Your task to perform on an android device: turn off picture-in-picture Image 0: 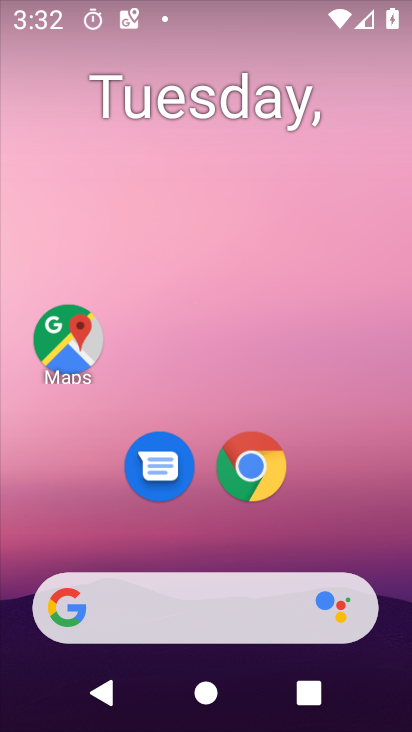
Step 0: drag from (381, 525) to (372, 205)
Your task to perform on an android device: turn off picture-in-picture Image 1: 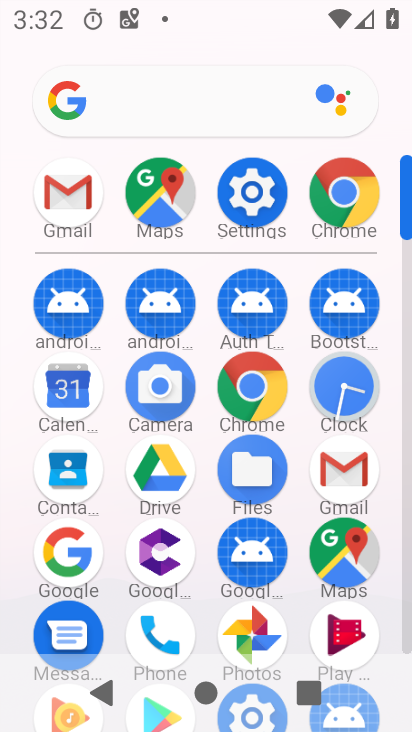
Step 1: click (264, 216)
Your task to perform on an android device: turn off picture-in-picture Image 2: 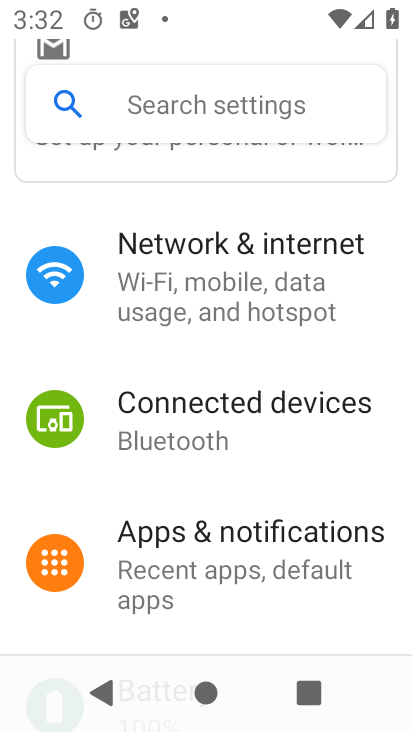
Step 2: drag from (373, 298) to (373, 511)
Your task to perform on an android device: turn off picture-in-picture Image 3: 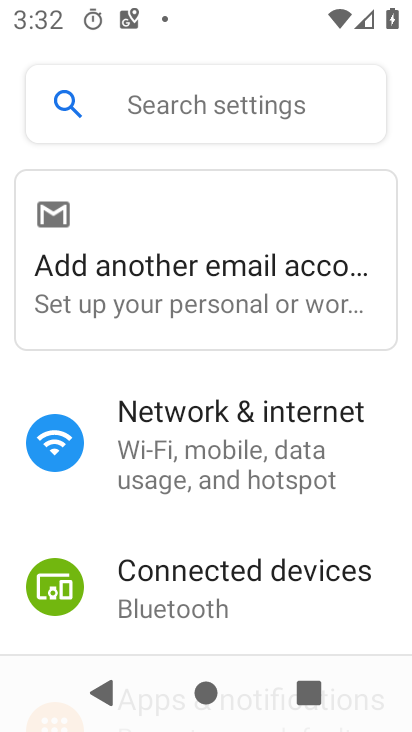
Step 3: drag from (377, 206) to (384, 482)
Your task to perform on an android device: turn off picture-in-picture Image 4: 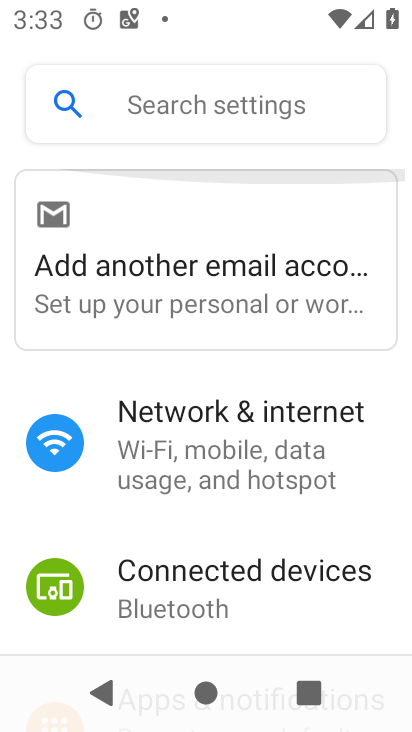
Step 4: drag from (381, 496) to (384, 418)
Your task to perform on an android device: turn off picture-in-picture Image 5: 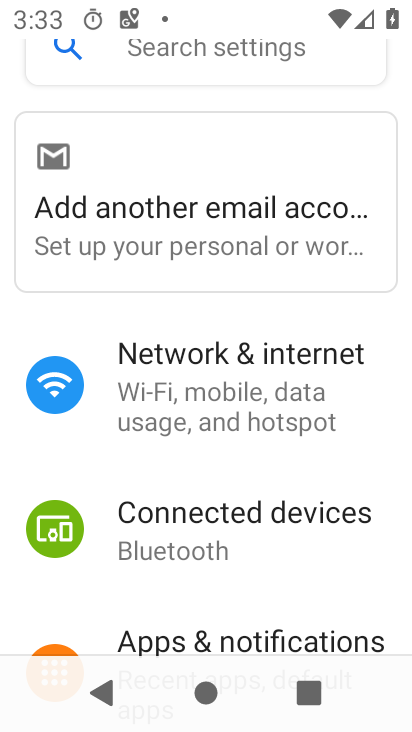
Step 5: drag from (377, 550) to (376, 468)
Your task to perform on an android device: turn off picture-in-picture Image 6: 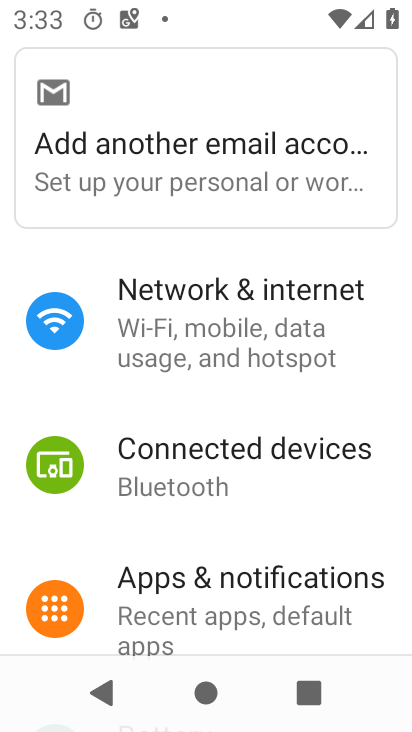
Step 6: drag from (376, 515) to (374, 423)
Your task to perform on an android device: turn off picture-in-picture Image 7: 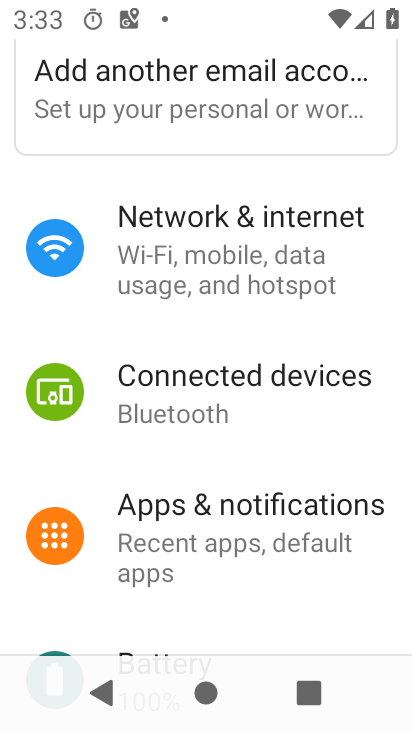
Step 7: drag from (370, 565) to (378, 465)
Your task to perform on an android device: turn off picture-in-picture Image 8: 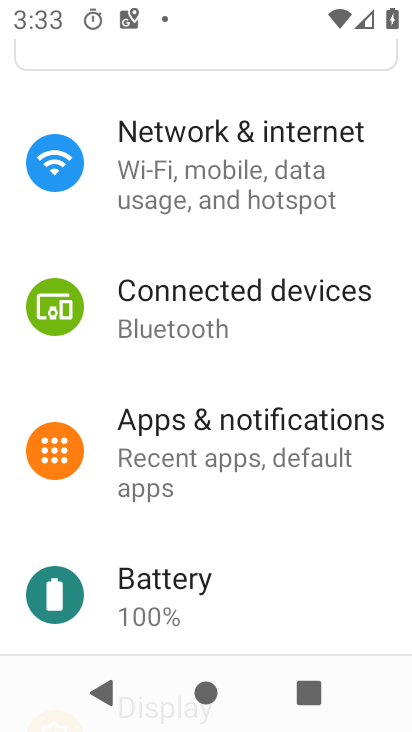
Step 8: click (332, 467)
Your task to perform on an android device: turn off picture-in-picture Image 9: 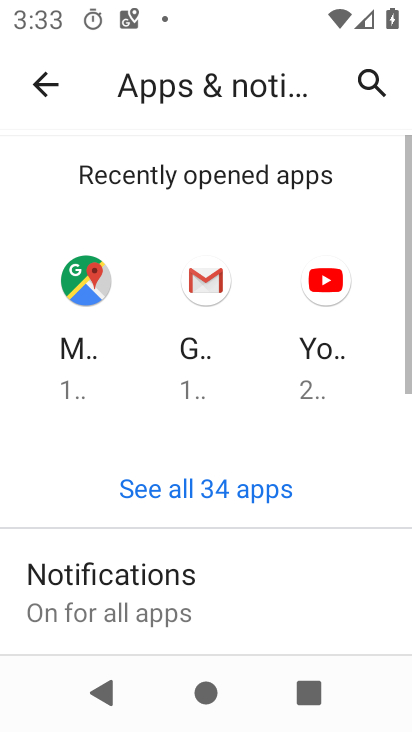
Step 9: drag from (319, 532) to (325, 448)
Your task to perform on an android device: turn off picture-in-picture Image 10: 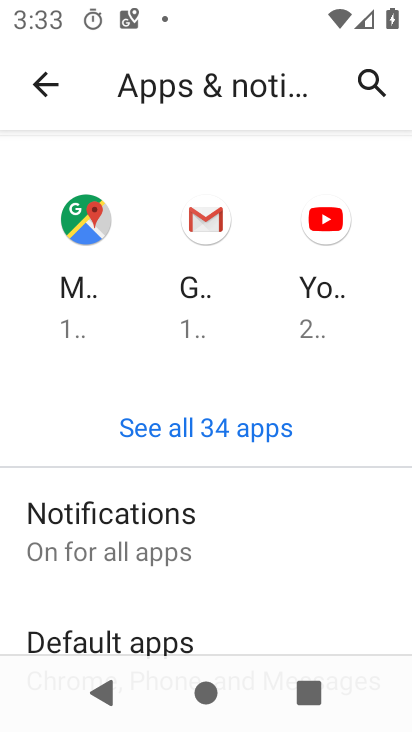
Step 10: drag from (324, 545) to (323, 431)
Your task to perform on an android device: turn off picture-in-picture Image 11: 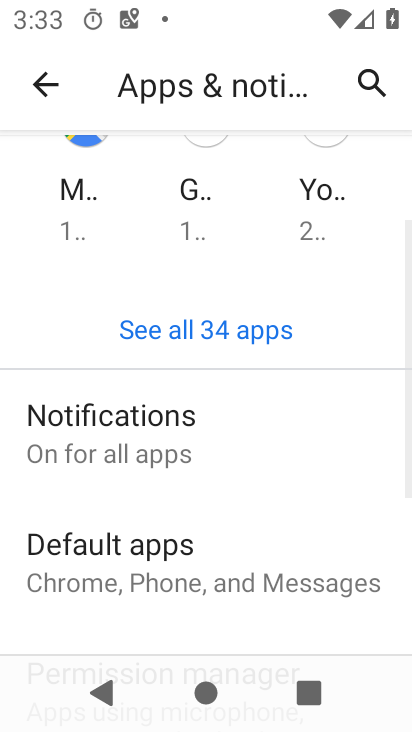
Step 11: drag from (328, 565) to (330, 468)
Your task to perform on an android device: turn off picture-in-picture Image 12: 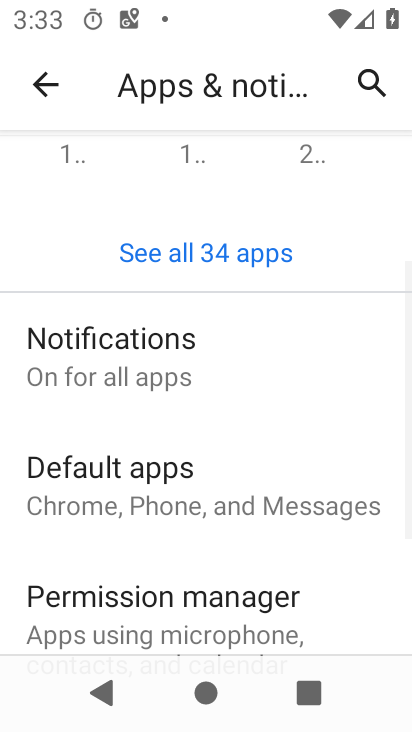
Step 12: drag from (355, 587) to (356, 403)
Your task to perform on an android device: turn off picture-in-picture Image 13: 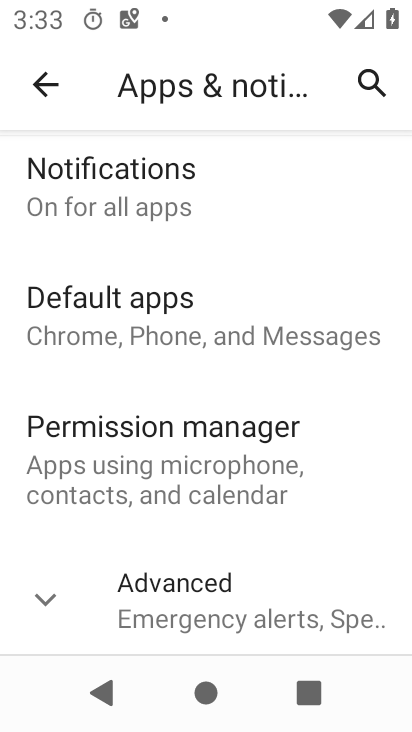
Step 13: drag from (333, 508) to (349, 427)
Your task to perform on an android device: turn off picture-in-picture Image 14: 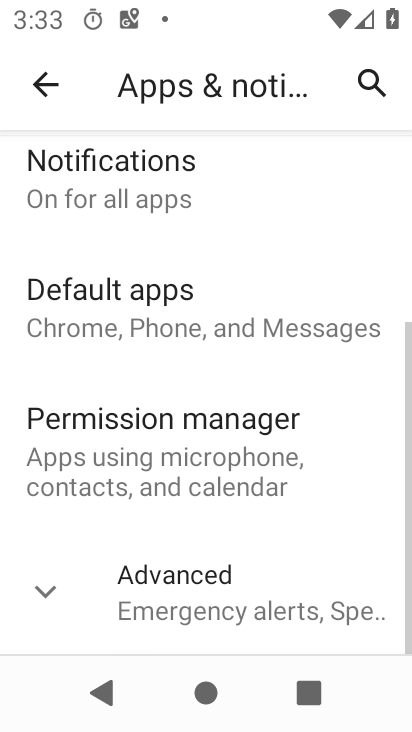
Step 14: click (318, 577)
Your task to perform on an android device: turn off picture-in-picture Image 15: 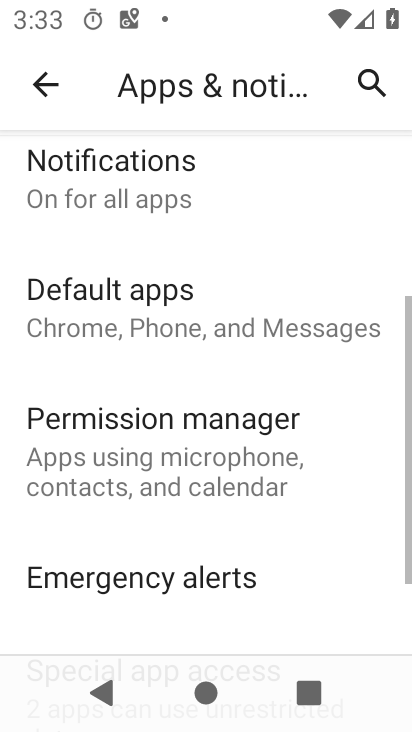
Step 15: drag from (303, 588) to (327, 466)
Your task to perform on an android device: turn off picture-in-picture Image 16: 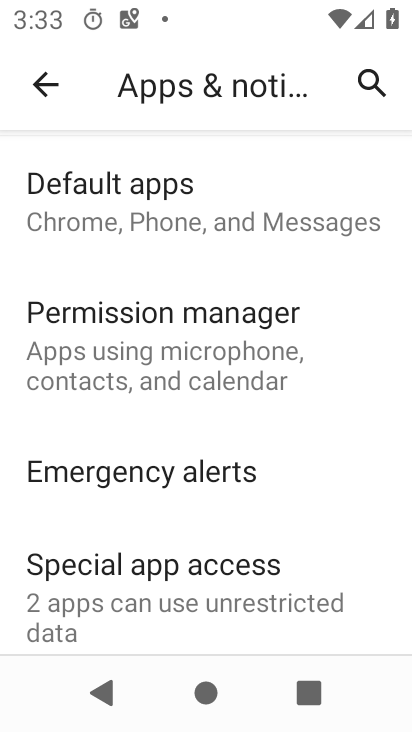
Step 16: click (320, 604)
Your task to perform on an android device: turn off picture-in-picture Image 17: 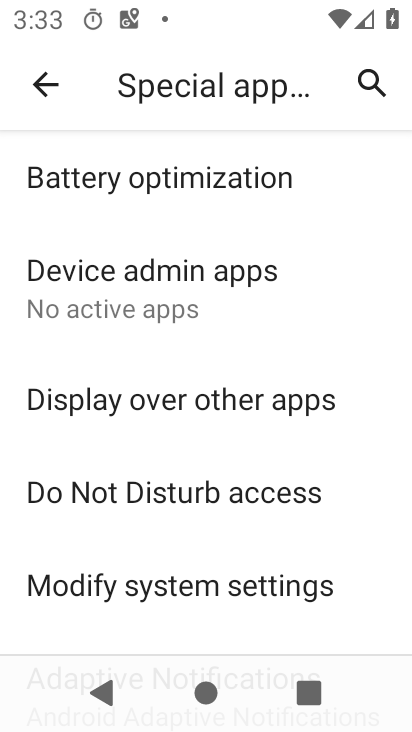
Step 17: drag from (373, 537) to (372, 358)
Your task to perform on an android device: turn off picture-in-picture Image 18: 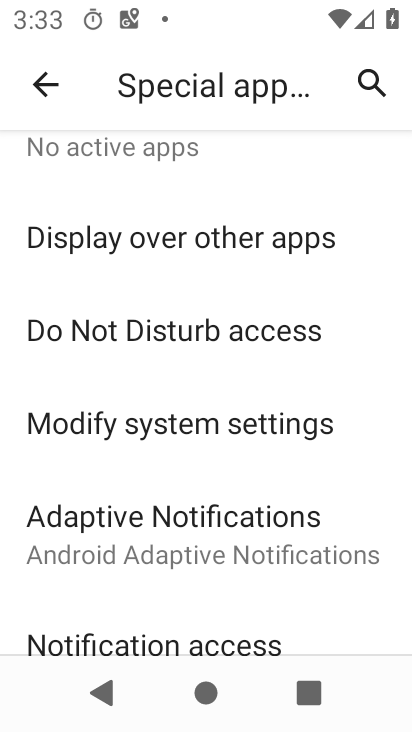
Step 18: drag from (346, 579) to (358, 364)
Your task to perform on an android device: turn off picture-in-picture Image 19: 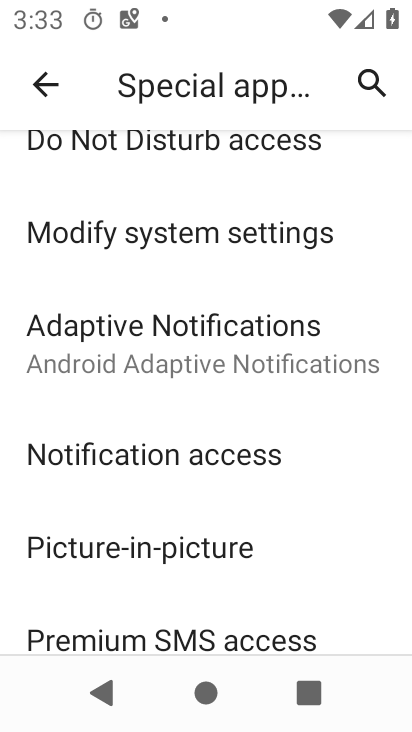
Step 19: click (292, 558)
Your task to perform on an android device: turn off picture-in-picture Image 20: 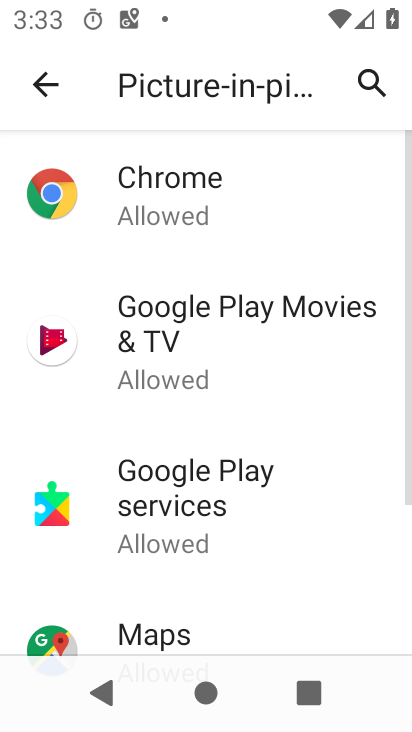
Step 20: drag from (293, 550) to (315, 404)
Your task to perform on an android device: turn off picture-in-picture Image 21: 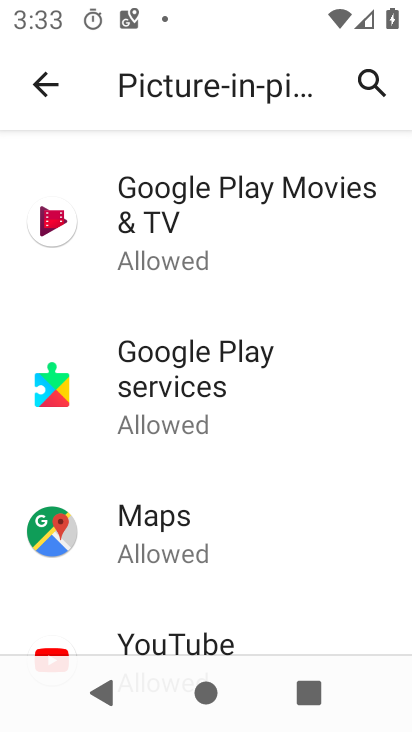
Step 21: drag from (302, 546) to (319, 367)
Your task to perform on an android device: turn off picture-in-picture Image 22: 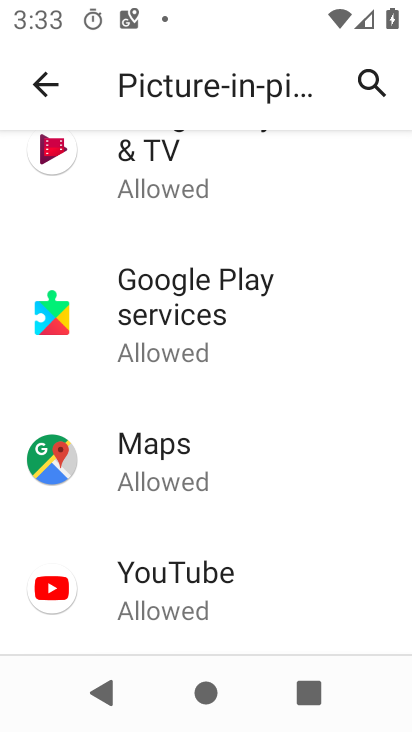
Step 22: click (267, 582)
Your task to perform on an android device: turn off picture-in-picture Image 23: 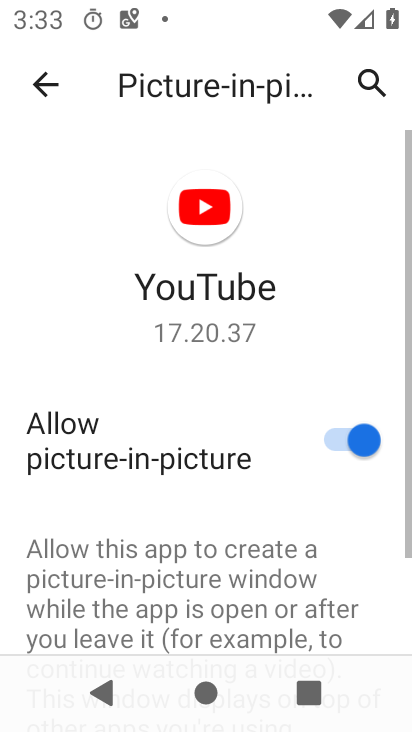
Step 23: click (365, 446)
Your task to perform on an android device: turn off picture-in-picture Image 24: 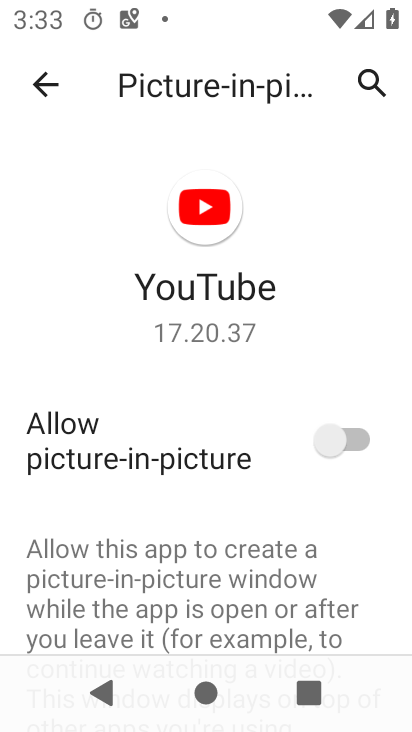
Step 24: task complete